Your task to perform on an android device: move an email to a new category in the gmail app Image 0: 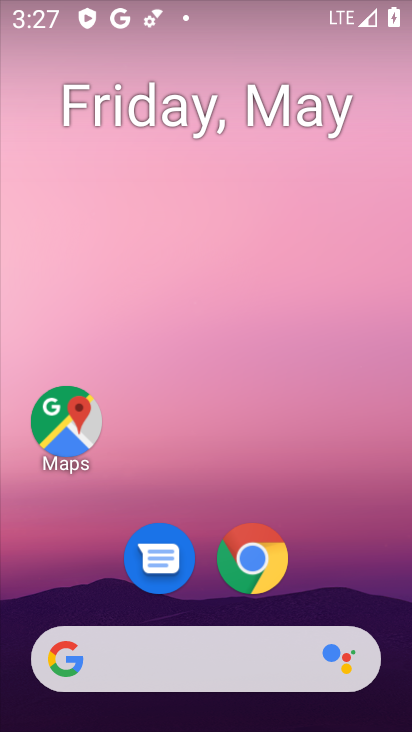
Step 0: press home button
Your task to perform on an android device: move an email to a new category in the gmail app Image 1: 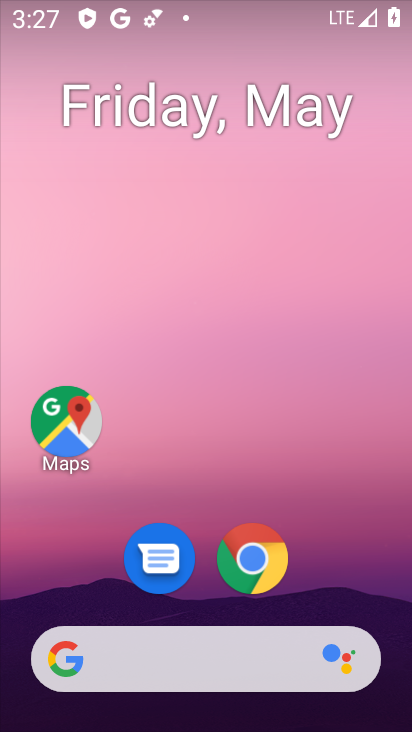
Step 1: drag from (183, 629) to (274, 172)
Your task to perform on an android device: move an email to a new category in the gmail app Image 2: 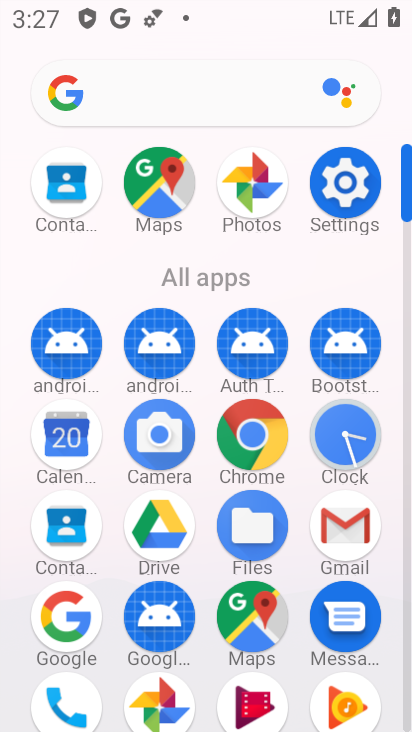
Step 2: click (354, 533)
Your task to perform on an android device: move an email to a new category in the gmail app Image 3: 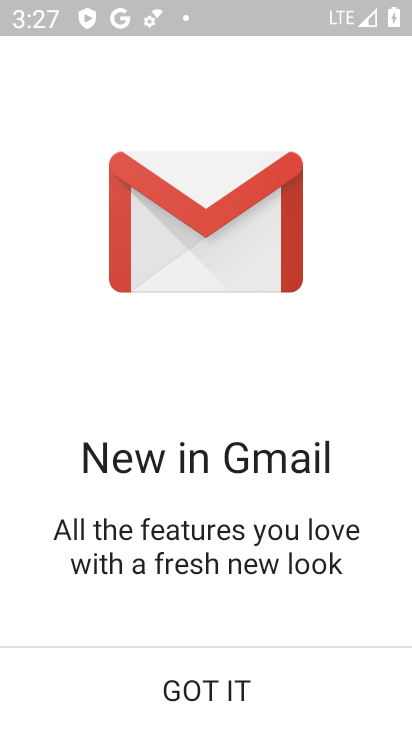
Step 3: click (234, 700)
Your task to perform on an android device: move an email to a new category in the gmail app Image 4: 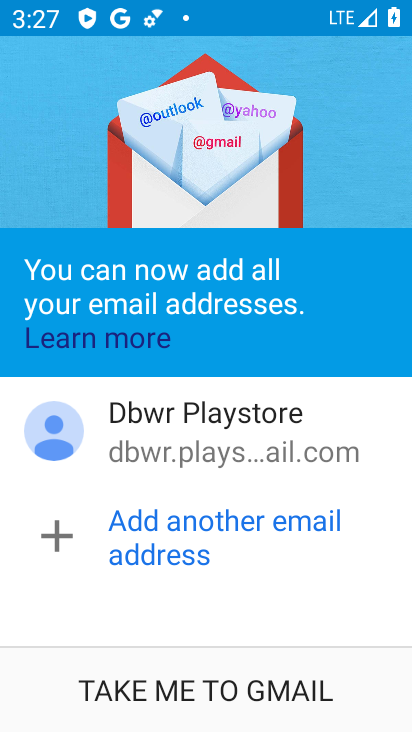
Step 4: click (238, 694)
Your task to perform on an android device: move an email to a new category in the gmail app Image 5: 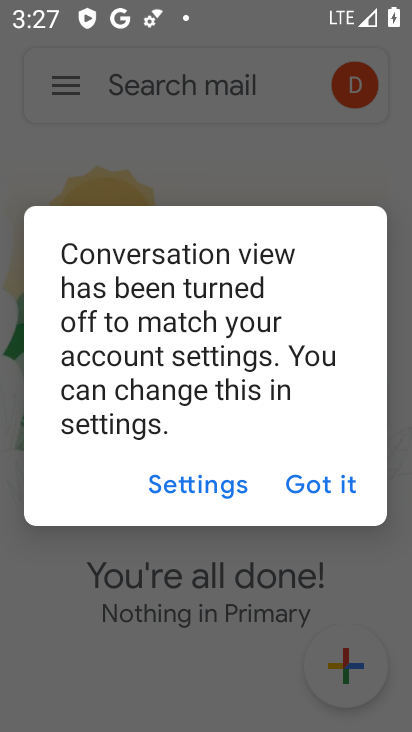
Step 5: click (309, 484)
Your task to perform on an android device: move an email to a new category in the gmail app Image 6: 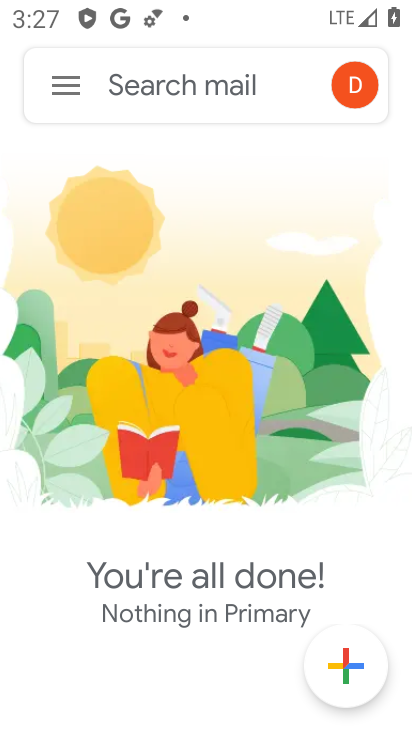
Step 6: task complete